Your task to perform on an android device: Search for nike dri-fit shirts on Nike Image 0: 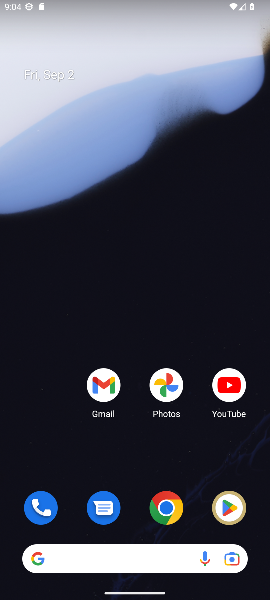
Step 0: drag from (166, 415) to (29, 62)
Your task to perform on an android device: Search for nike dri-fit shirts on Nike Image 1: 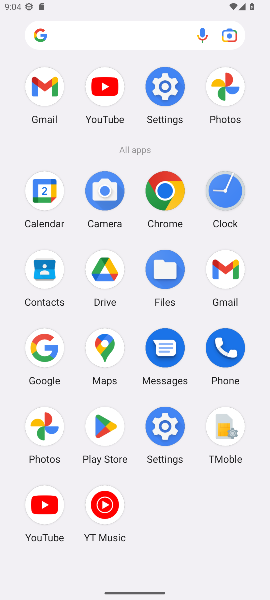
Step 1: click (157, 190)
Your task to perform on an android device: Search for nike dri-fit shirts on Nike Image 2: 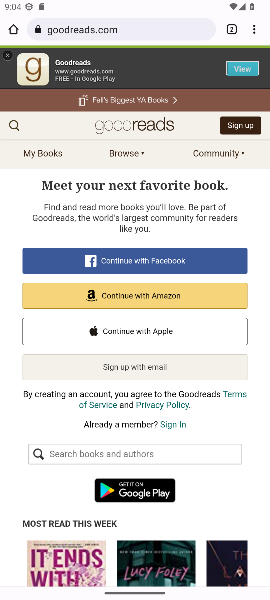
Step 2: click (132, 22)
Your task to perform on an android device: Search for nike dri-fit shirts on Nike Image 3: 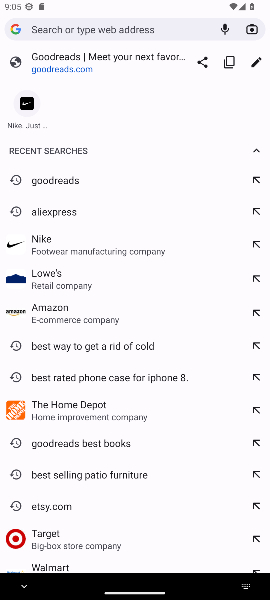
Step 3: type "nike"
Your task to perform on an android device: Search for nike dri-fit shirts on Nike Image 4: 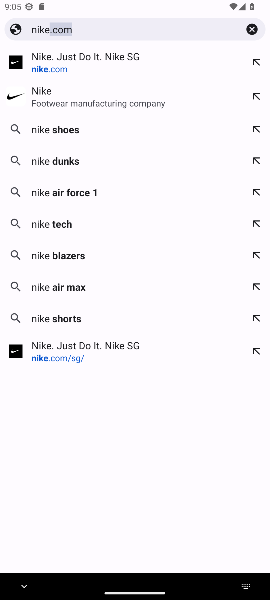
Step 4: click (56, 70)
Your task to perform on an android device: Search for nike dri-fit shirts on Nike Image 5: 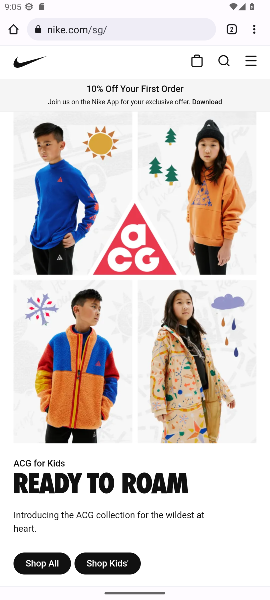
Step 5: click (220, 56)
Your task to perform on an android device: Search for nike dri-fit shirts on Nike Image 6: 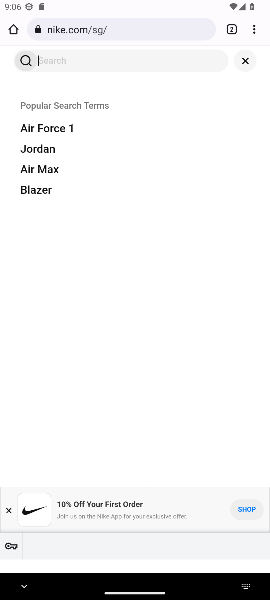
Step 6: type "nike dri-fit"
Your task to perform on an android device: Search for nike dri-fit shirts on Nike Image 7: 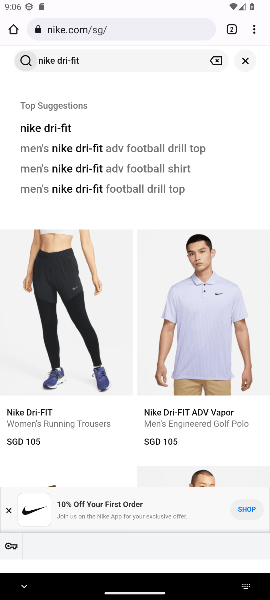
Step 7: task complete